Your task to perform on an android device: What's on my calendar today? Image 0: 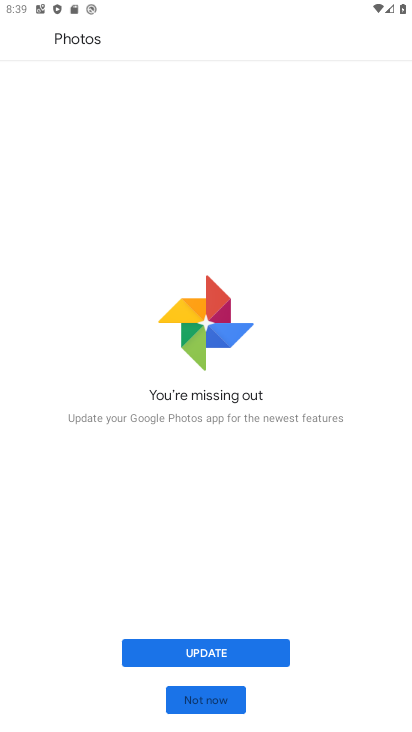
Step 0: press home button
Your task to perform on an android device: What's on my calendar today? Image 1: 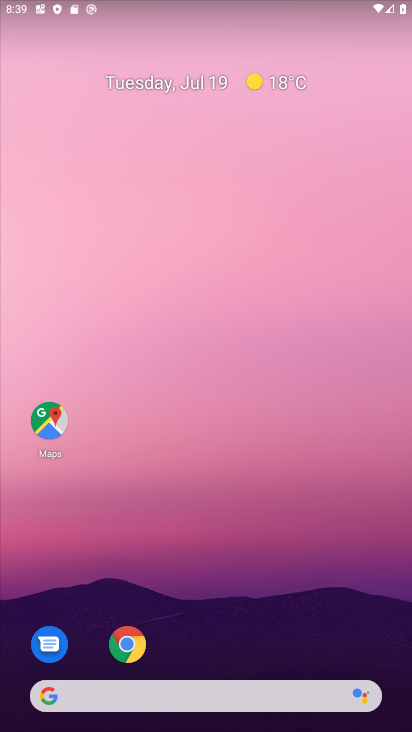
Step 1: drag from (224, 578) to (215, 201)
Your task to perform on an android device: What's on my calendar today? Image 2: 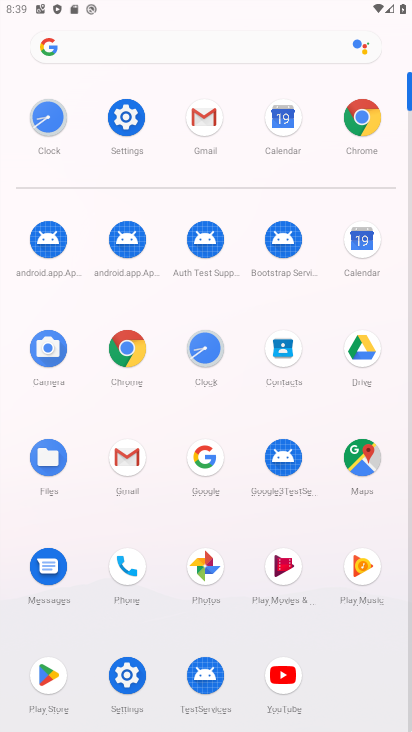
Step 2: click (361, 238)
Your task to perform on an android device: What's on my calendar today? Image 3: 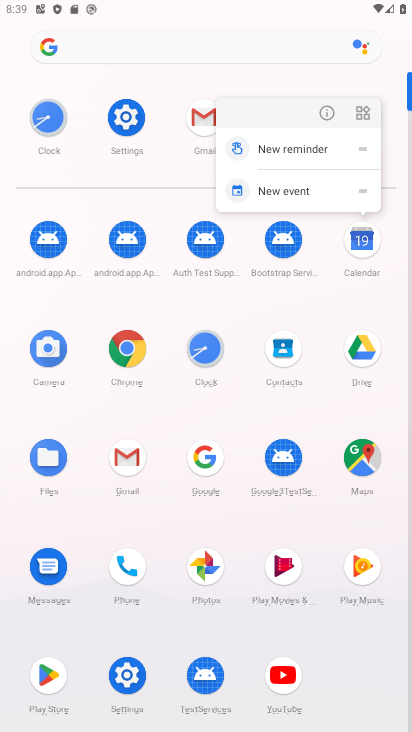
Step 3: click (350, 244)
Your task to perform on an android device: What's on my calendar today? Image 4: 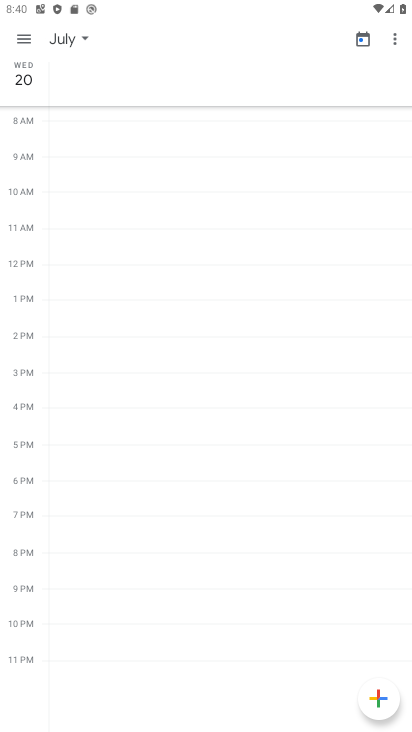
Step 4: click (82, 37)
Your task to perform on an android device: What's on my calendar today? Image 5: 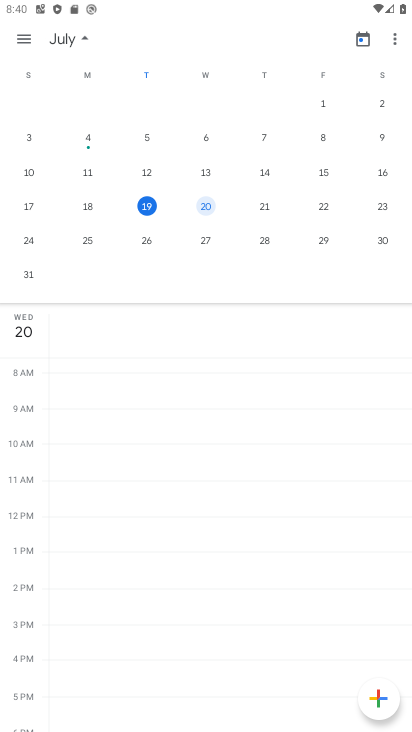
Step 5: click (147, 203)
Your task to perform on an android device: What's on my calendar today? Image 6: 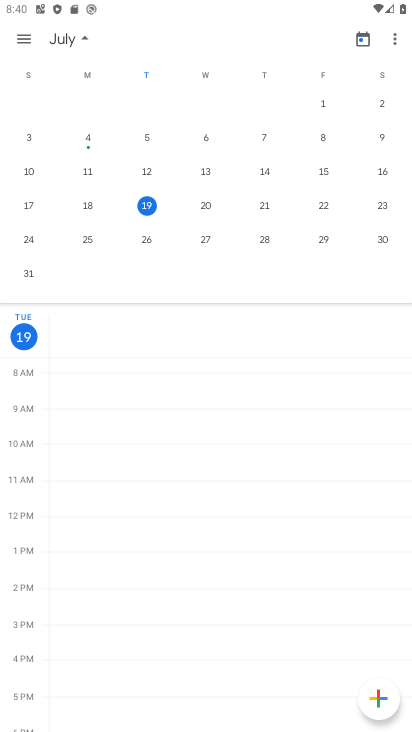
Step 6: click (145, 206)
Your task to perform on an android device: What's on my calendar today? Image 7: 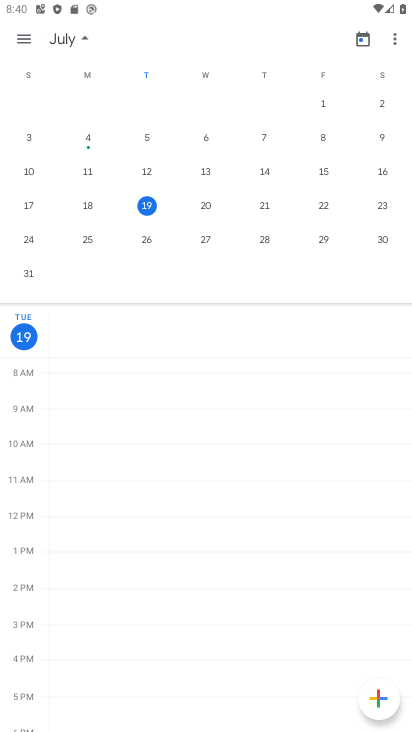
Step 7: click (23, 331)
Your task to perform on an android device: What's on my calendar today? Image 8: 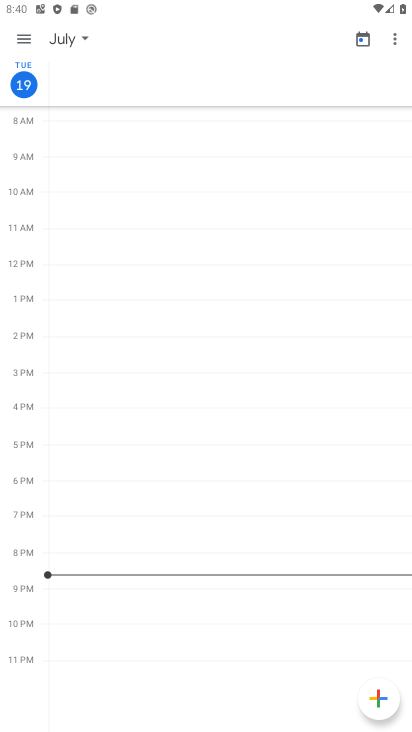
Step 8: task complete